Your task to perform on an android device: check storage Image 0: 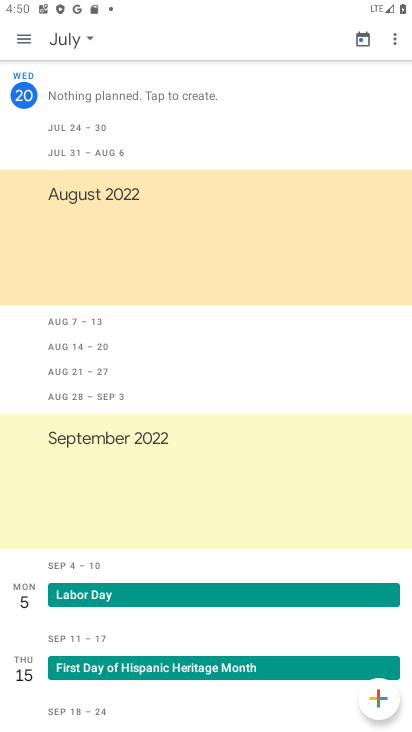
Step 0: press home button
Your task to perform on an android device: check storage Image 1: 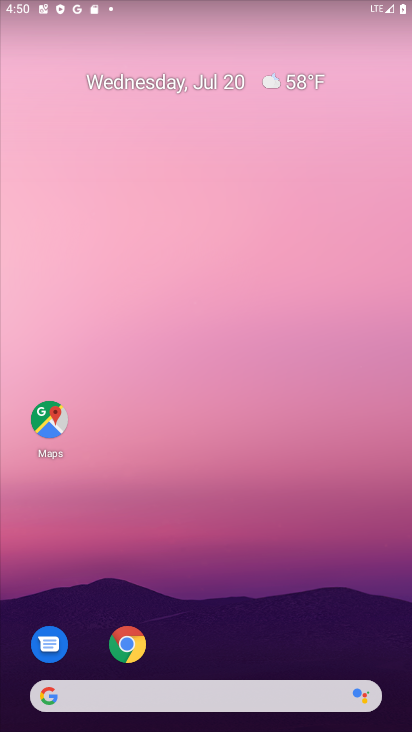
Step 1: drag from (238, 653) to (257, 28)
Your task to perform on an android device: check storage Image 2: 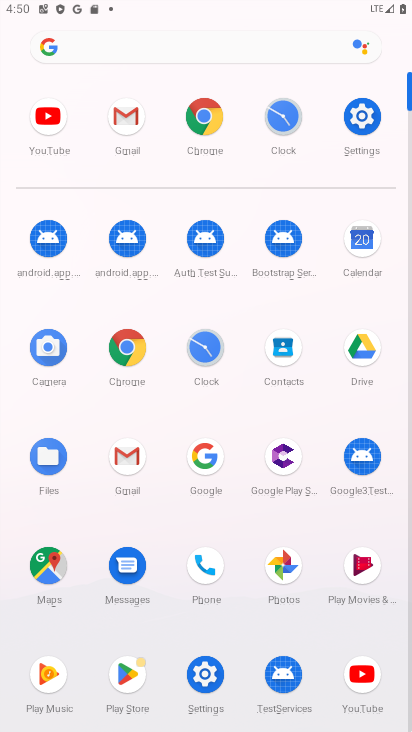
Step 2: click (367, 124)
Your task to perform on an android device: check storage Image 3: 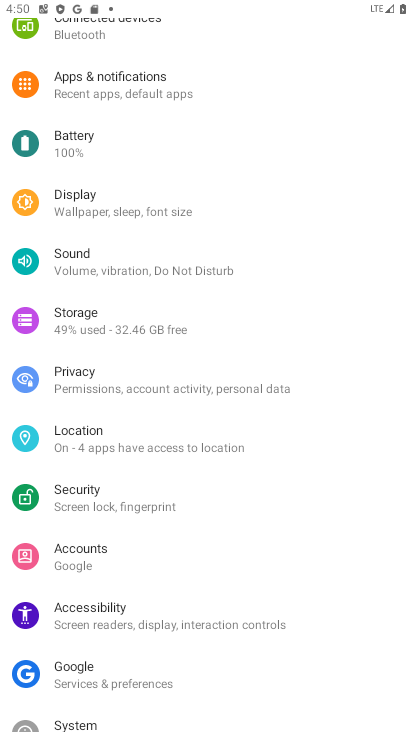
Step 3: click (74, 325)
Your task to perform on an android device: check storage Image 4: 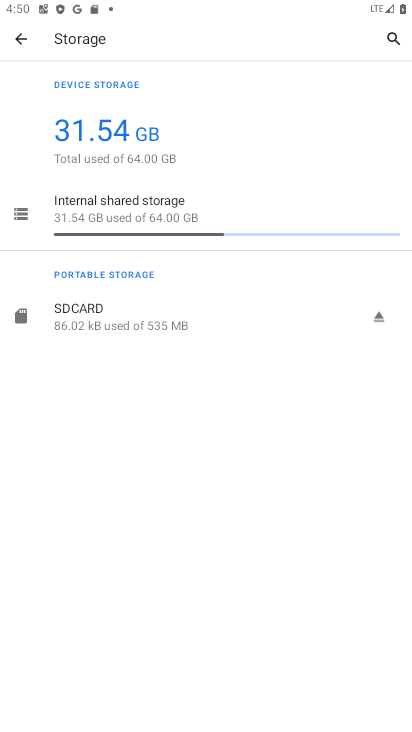
Step 4: task complete